Your task to perform on an android device: Go to Yahoo.com Image 0: 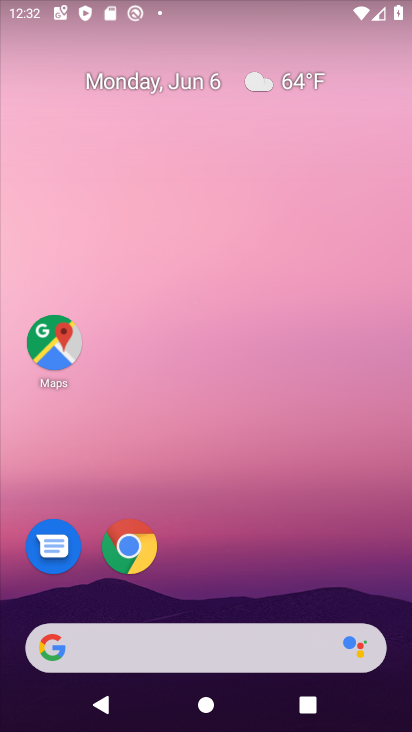
Step 0: click (144, 533)
Your task to perform on an android device: Go to Yahoo.com Image 1: 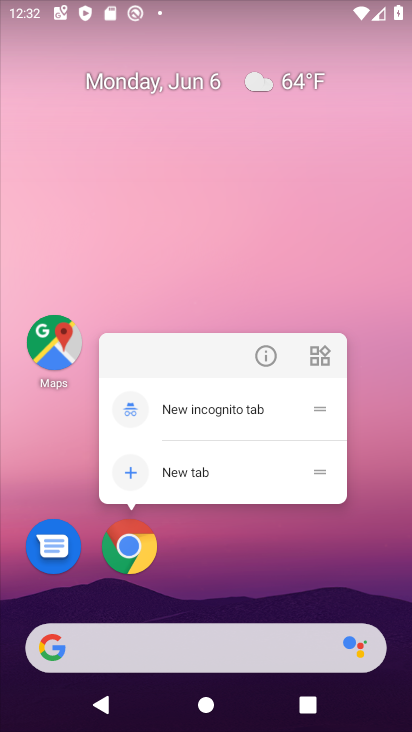
Step 1: click (128, 544)
Your task to perform on an android device: Go to Yahoo.com Image 2: 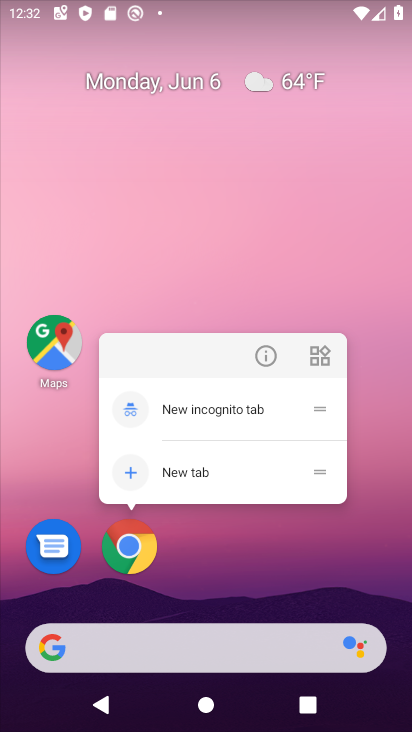
Step 2: click (131, 549)
Your task to perform on an android device: Go to Yahoo.com Image 3: 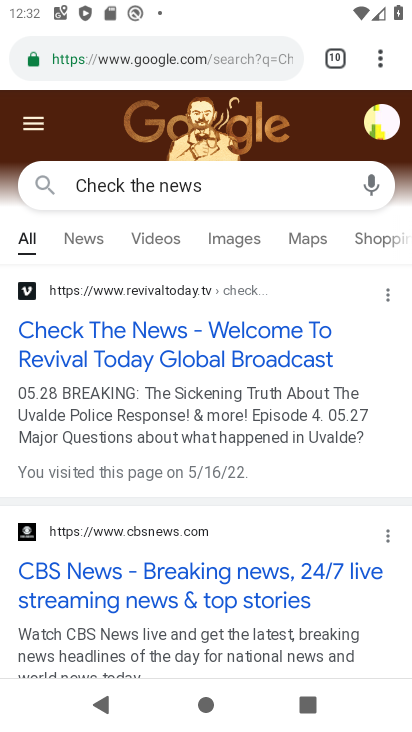
Step 3: click (381, 57)
Your task to perform on an android device: Go to Yahoo.com Image 4: 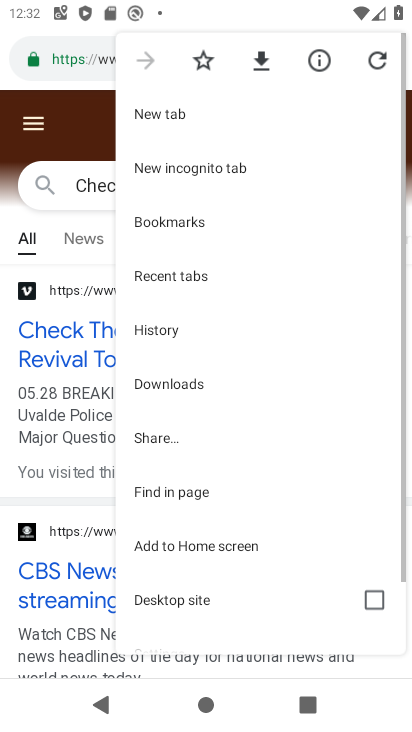
Step 4: click (152, 121)
Your task to perform on an android device: Go to Yahoo.com Image 5: 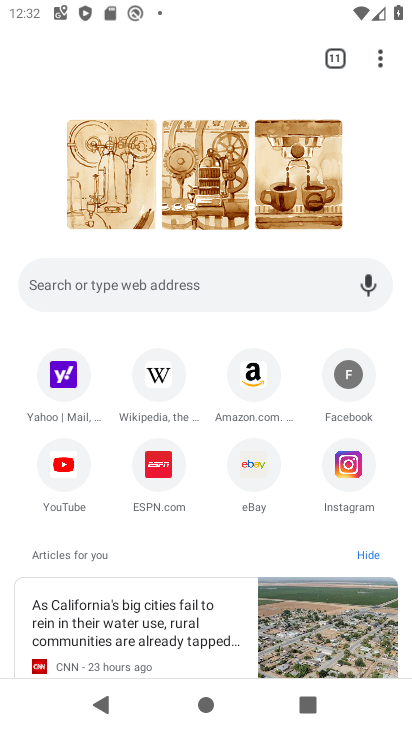
Step 5: click (61, 385)
Your task to perform on an android device: Go to Yahoo.com Image 6: 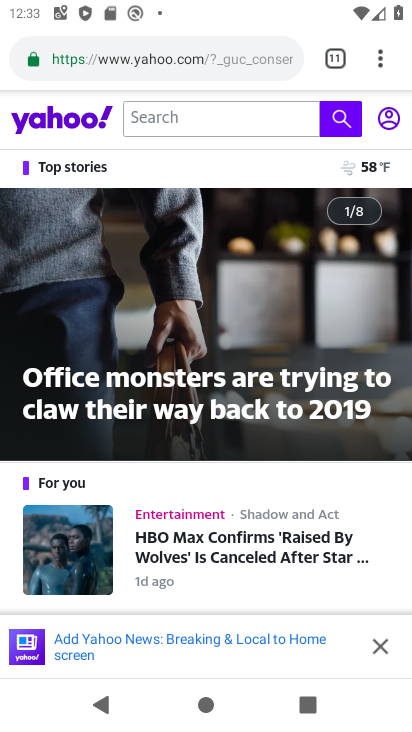
Step 6: task complete